Your task to perform on an android device: turn off sleep mode Image 0: 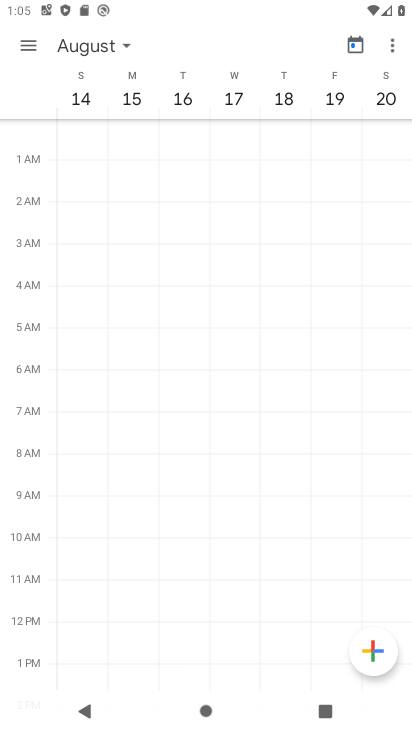
Step 0: press home button
Your task to perform on an android device: turn off sleep mode Image 1: 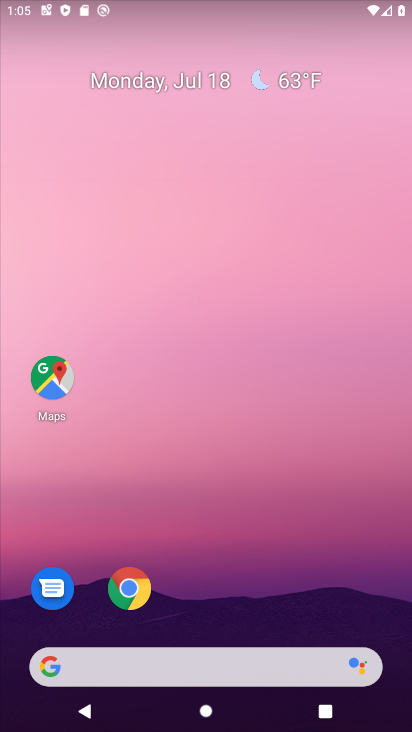
Step 1: drag from (290, 547) to (223, 93)
Your task to perform on an android device: turn off sleep mode Image 2: 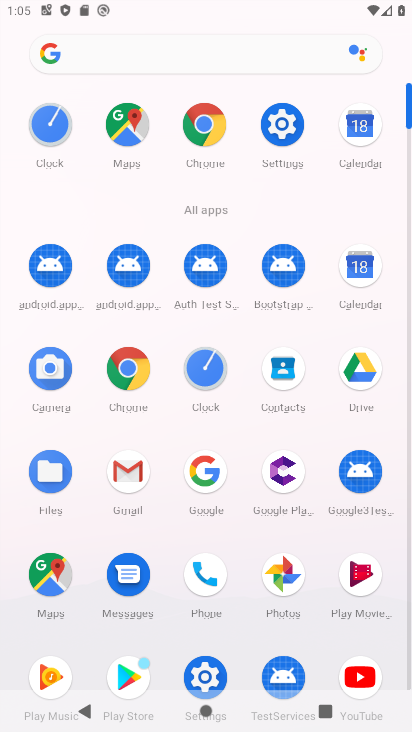
Step 2: click (276, 126)
Your task to perform on an android device: turn off sleep mode Image 3: 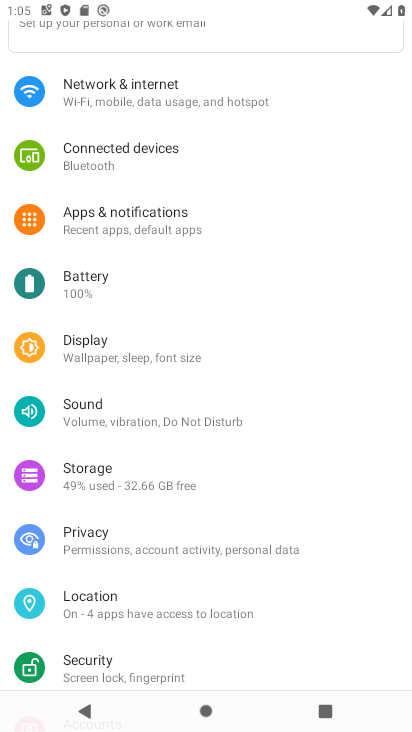
Step 3: click (74, 334)
Your task to perform on an android device: turn off sleep mode Image 4: 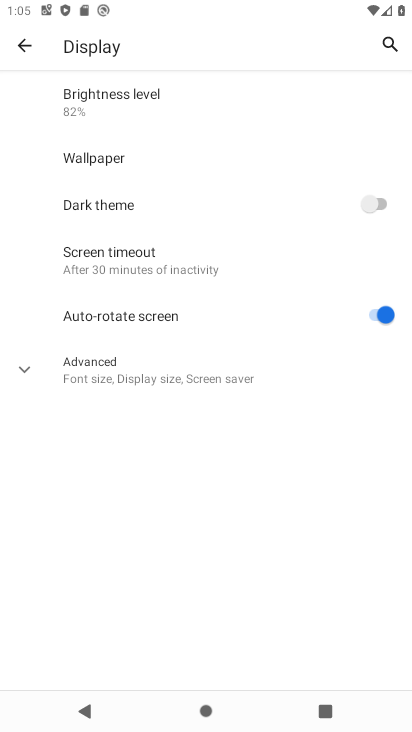
Step 4: task complete